Your task to perform on an android device: install app "ColorNote Notepad Notes" Image 0: 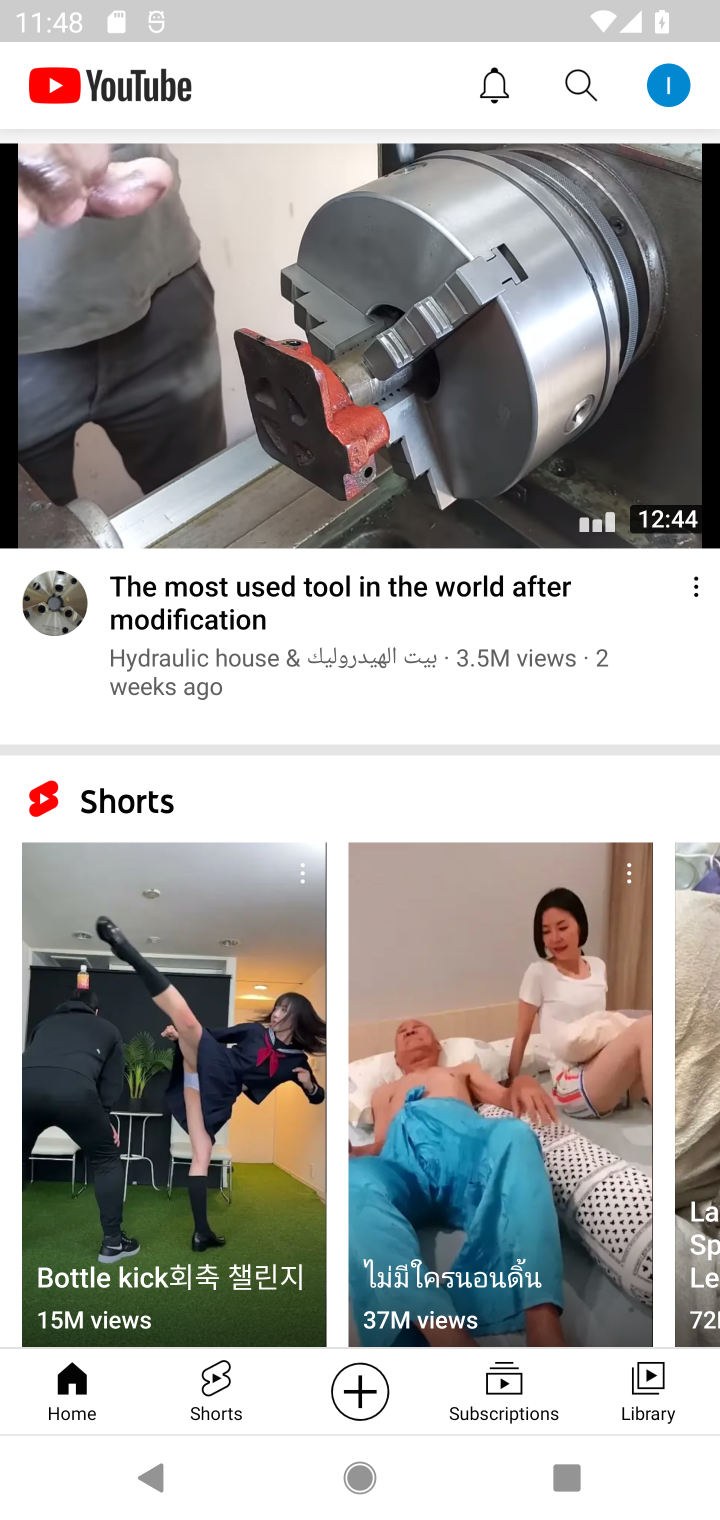
Step 0: press home button
Your task to perform on an android device: install app "ColorNote Notepad Notes" Image 1: 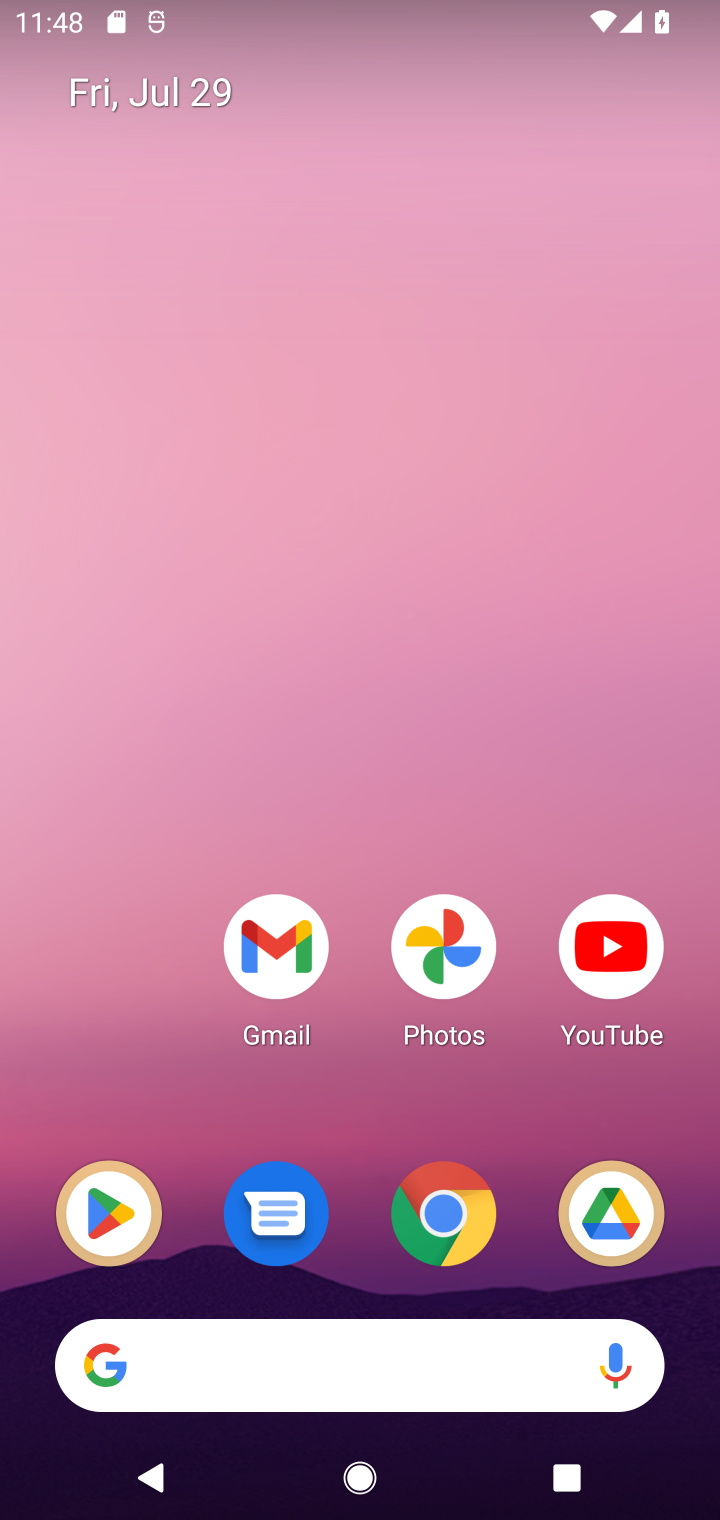
Step 1: drag from (438, 1500) to (469, 667)
Your task to perform on an android device: install app "ColorNote Notepad Notes" Image 2: 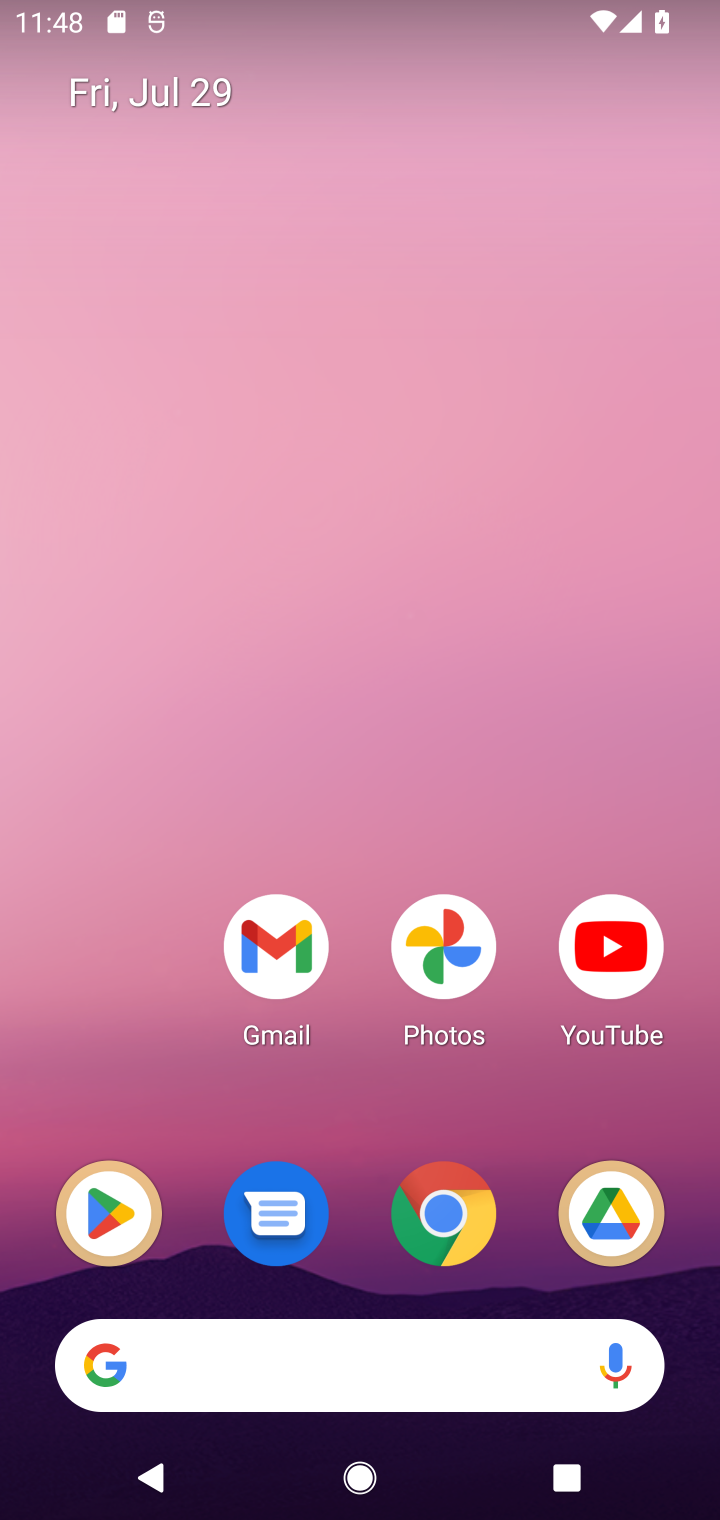
Step 2: drag from (414, 1395) to (293, 267)
Your task to perform on an android device: install app "ColorNote Notepad Notes" Image 3: 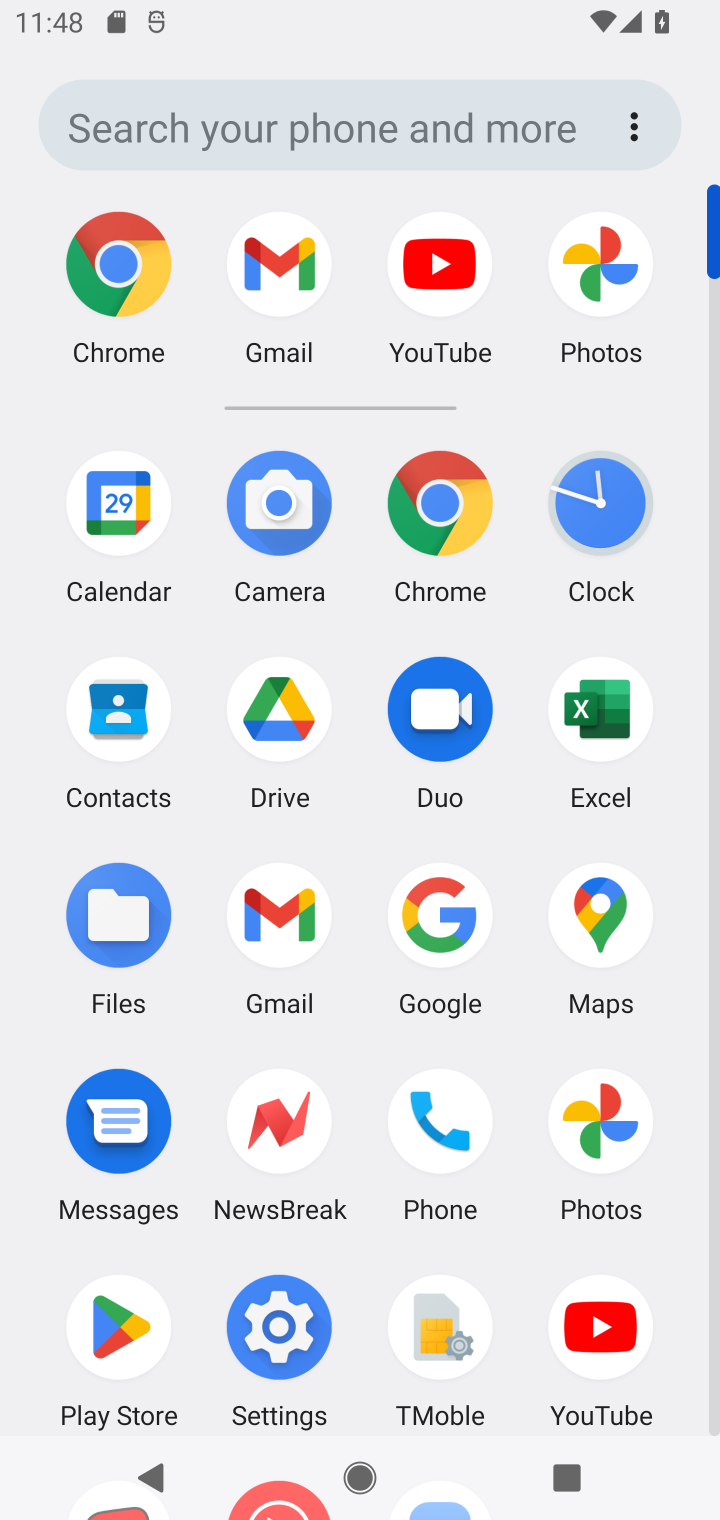
Step 3: click (124, 1323)
Your task to perform on an android device: install app "ColorNote Notepad Notes" Image 4: 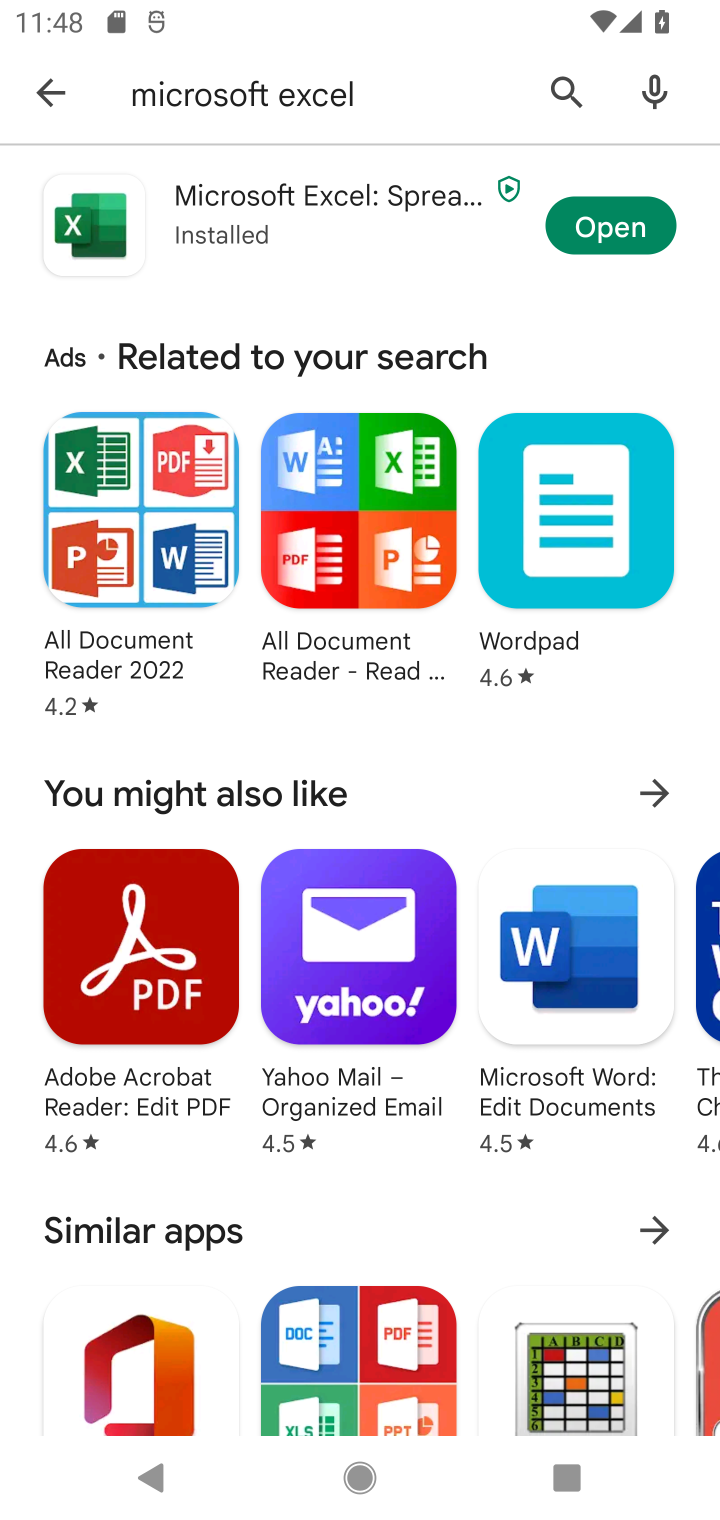
Step 4: click (556, 92)
Your task to perform on an android device: install app "ColorNote Notepad Notes" Image 5: 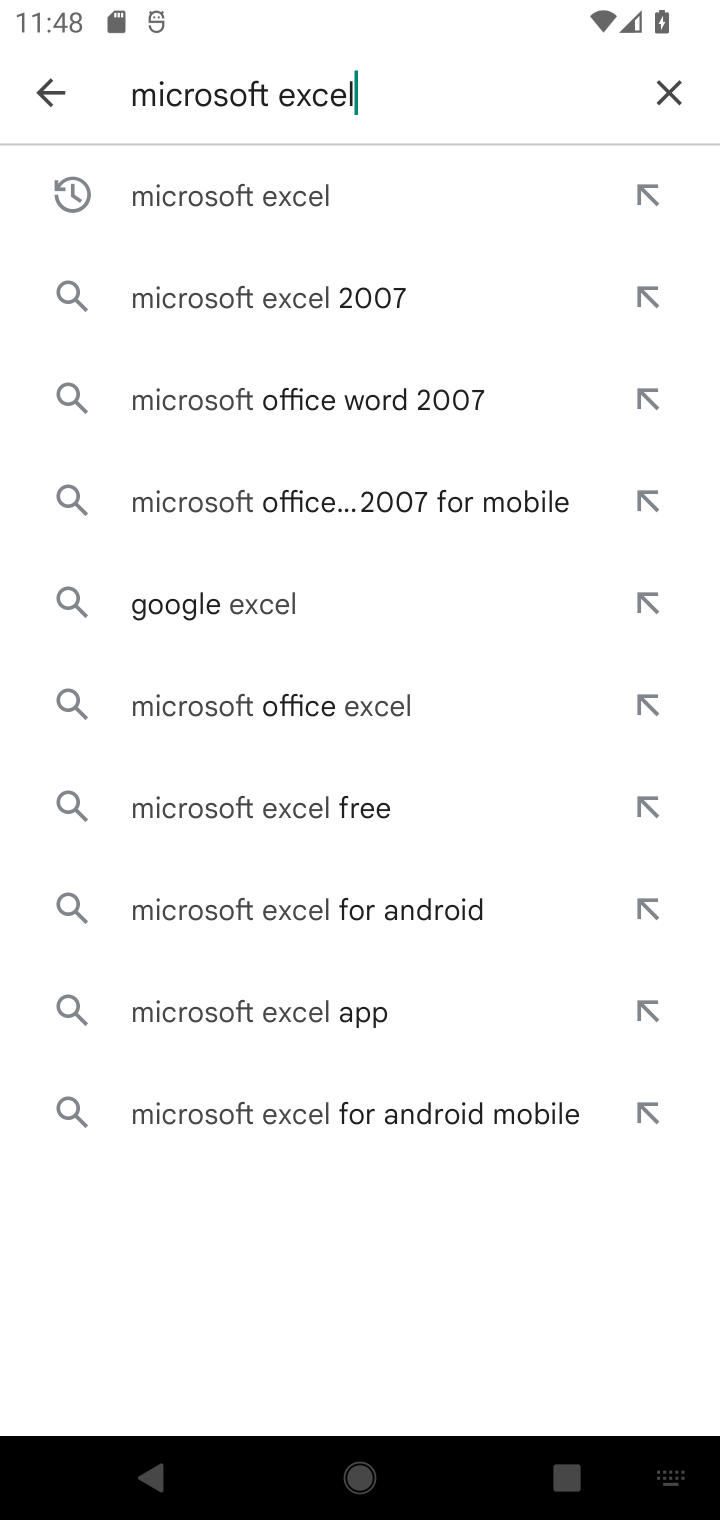
Step 5: click (663, 90)
Your task to perform on an android device: install app "ColorNote Notepad Notes" Image 6: 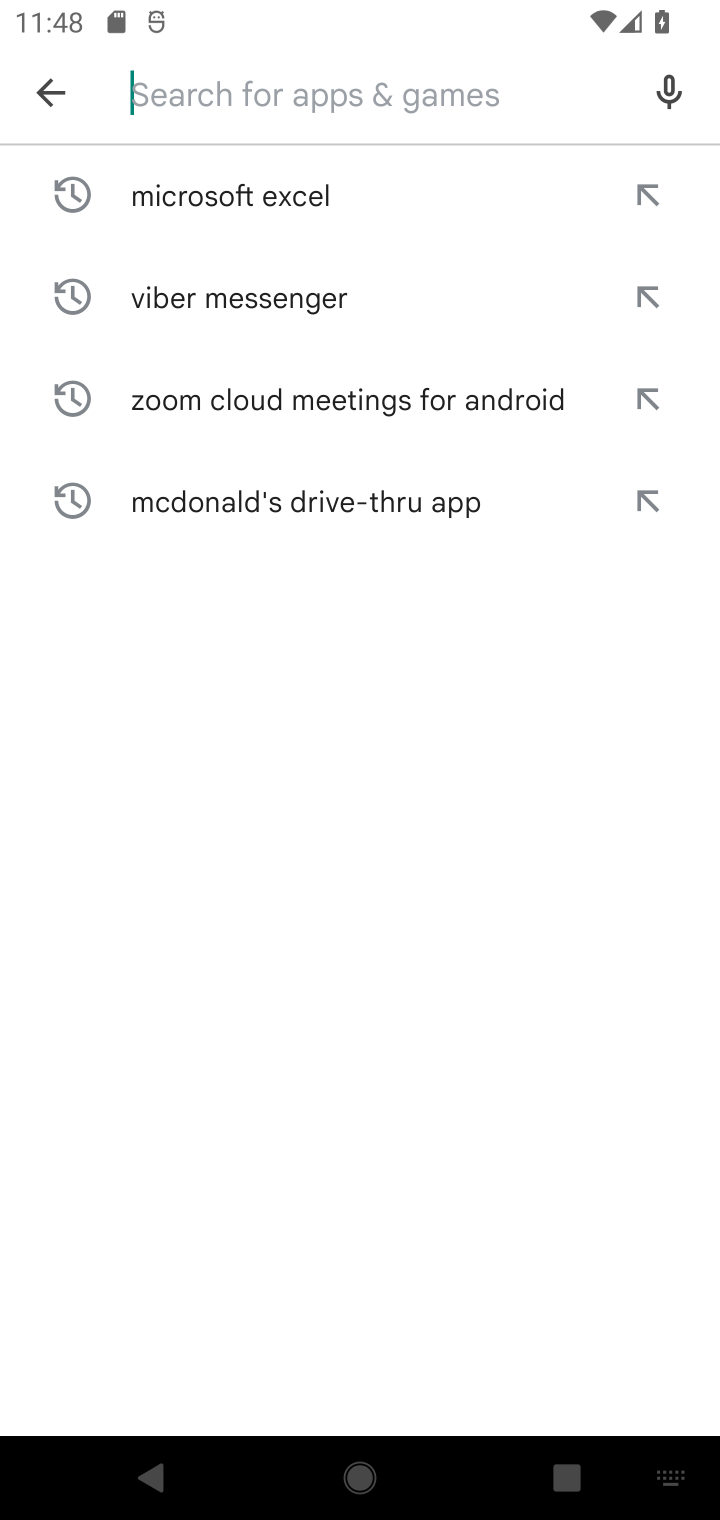
Step 6: type "ColorNote Notepad Notes"
Your task to perform on an android device: install app "ColorNote Notepad Notes" Image 7: 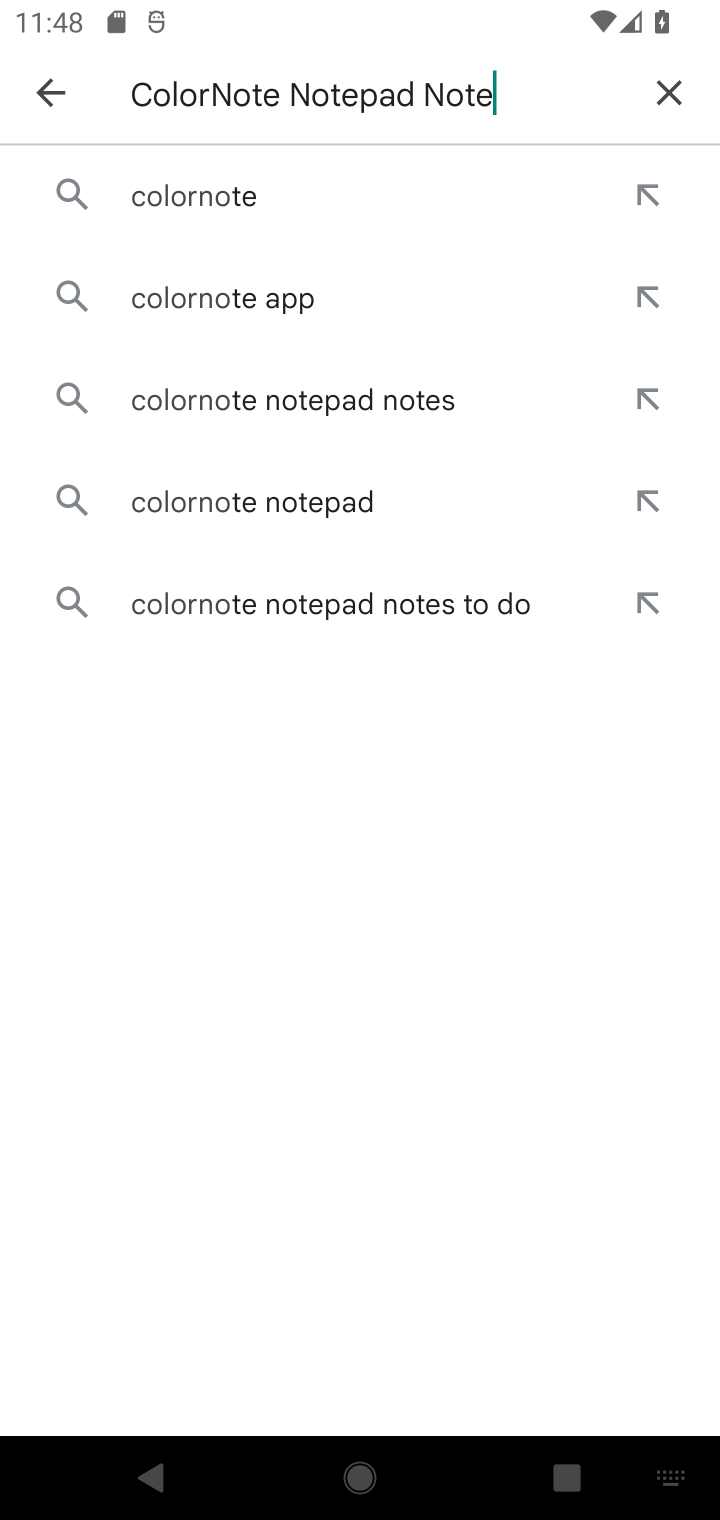
Step 7: type ""
Your task to perform on an android device: install app "ColorNote Notepad Notes" Image 8: 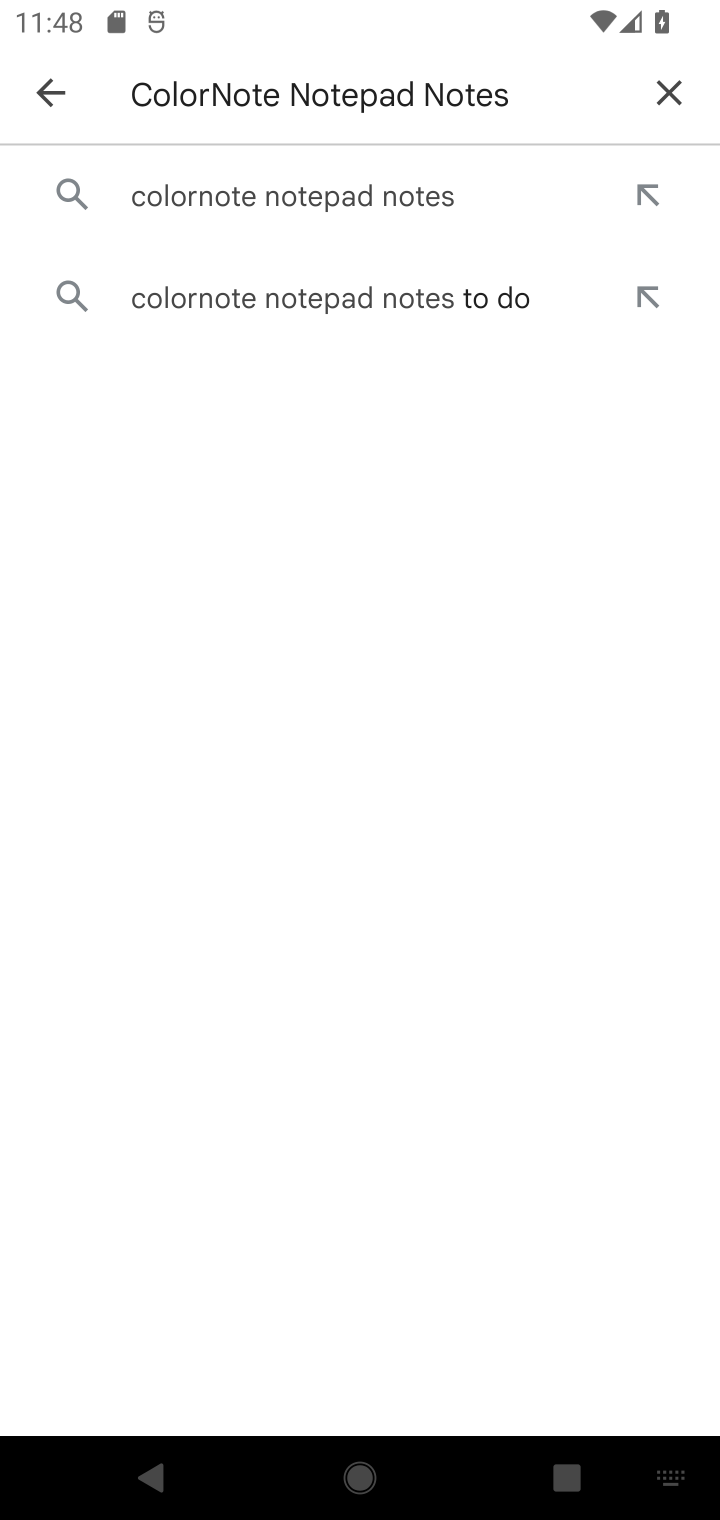
Step 8: click (372, 193)
Your task to perform on an android device: install app "ColorNote Notepad Notes" Image 9: 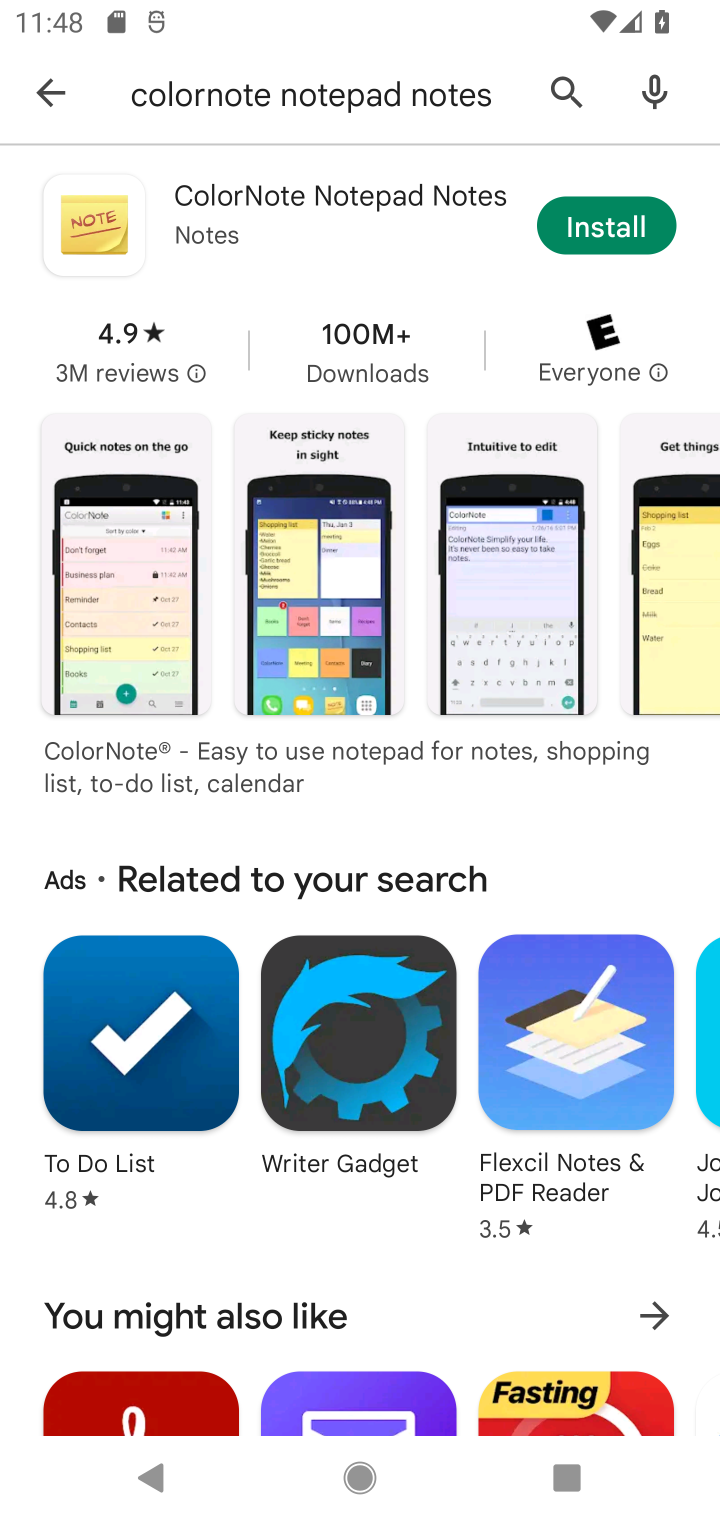
Step 9: click (604, 208)
Your task to perform on an android device: install app "ColorNote Notepad Notes" Image 10: 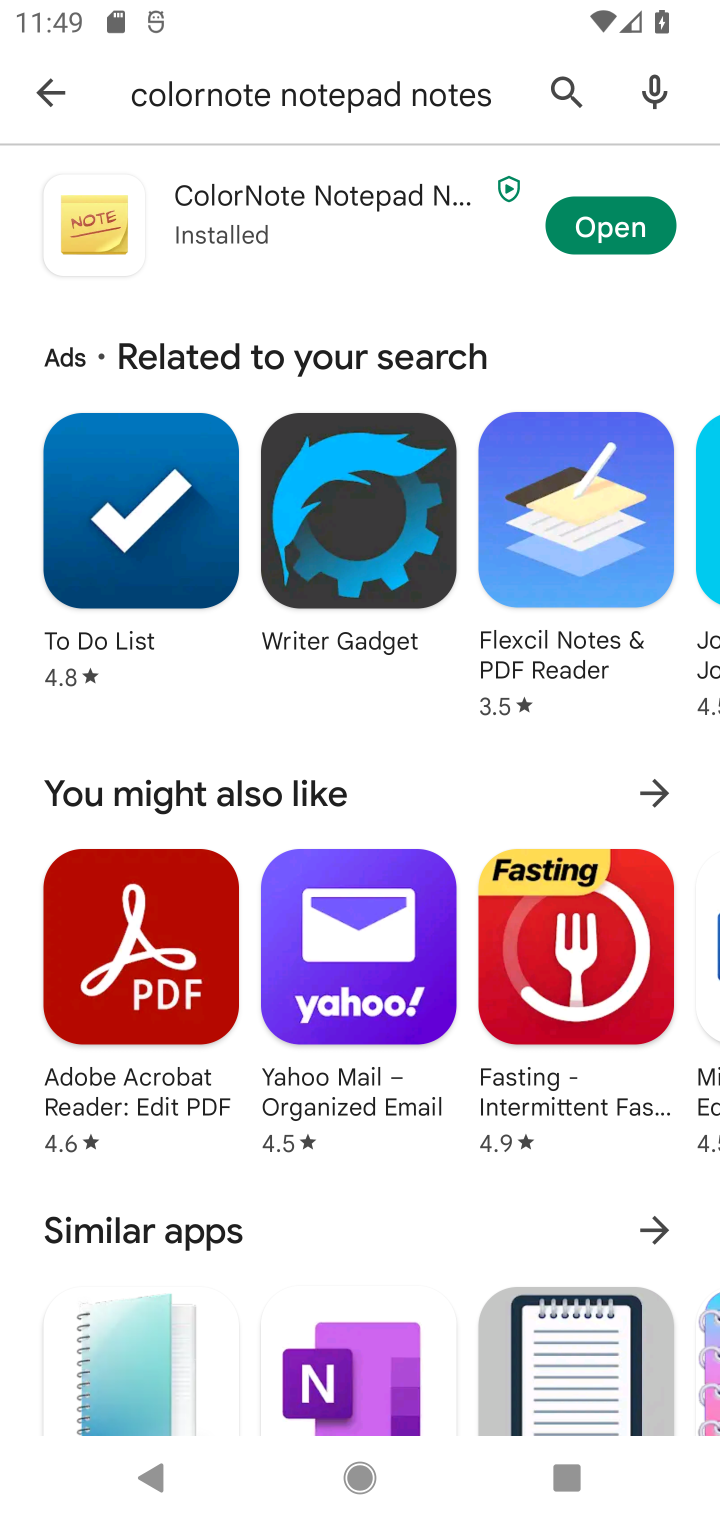
Step 10: task complete